Your task to perform on an android device: How do I get to the nearest AT&T Store? Image 0: 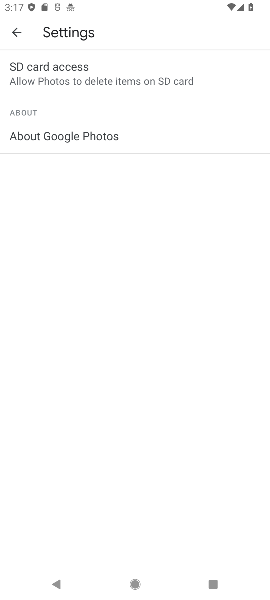
Step 0: press home button
Your task to perform on an android device: How do I get to the nearest AT&T Store? Image 1: 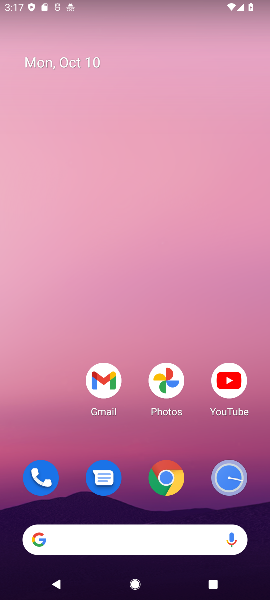
Step 1: click (161, 473)
Your task to perform on an android device: How do I get to the nearest AT&T Store? Image 2: 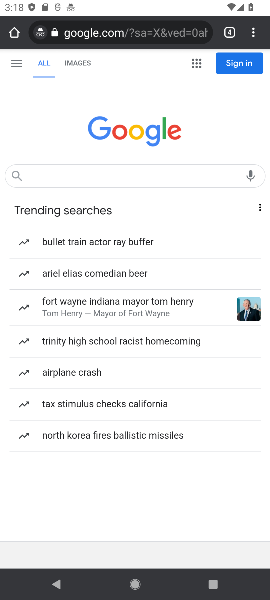
Step 2: click (102, 172)
Your task to perform on an android device: How do I get to the nearest AT&T Store? Image 3: 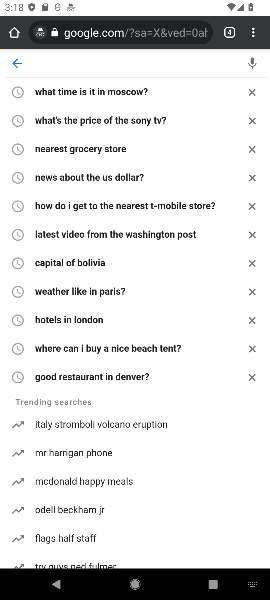
Step 3: type "How do I get to the nearest AT&T Store?"
Your task to perform on an android device: How do I get to the nearest AT&T Store? Image 4: 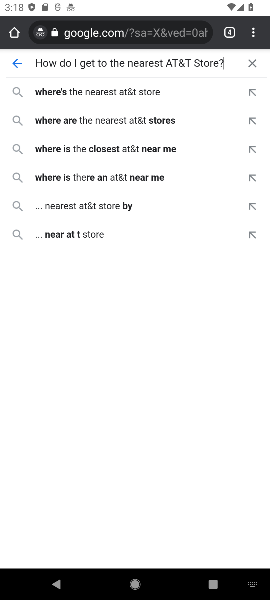
Step 4: click (156, 91)
Your task to perform on an android device: How do I get to the nearest AT&T Store? Image 5: 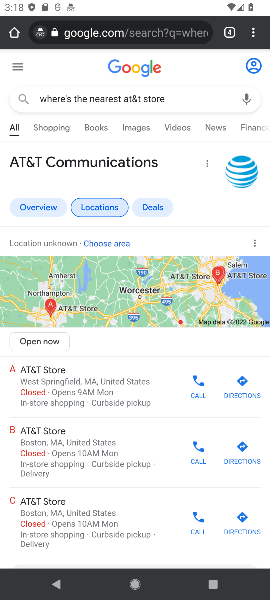
Step 5: task complete